Your task to perform on an android device: View the shopping cart on bestbuy.com. Search for "sony triple a" on bestbuy.com, select the first entry, and add it to the cart. Image 0: 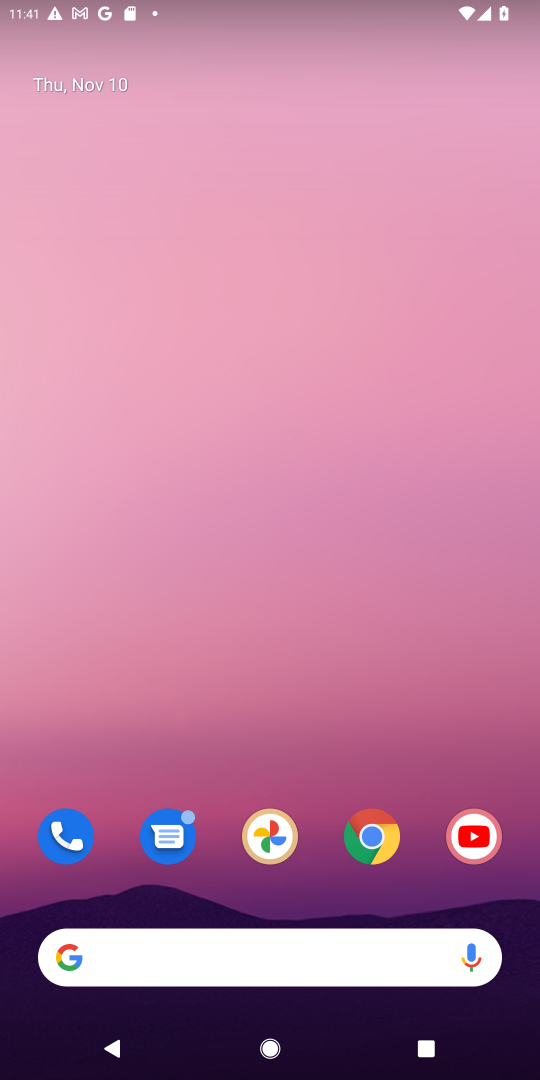
Step 0: click (264, 964)
Your task to perform on an android device: View the shopping cart on bestbuy.com. Search for "sony triple a" on bestbuy.com, select the first entry, and add it to the cart. Image 1: 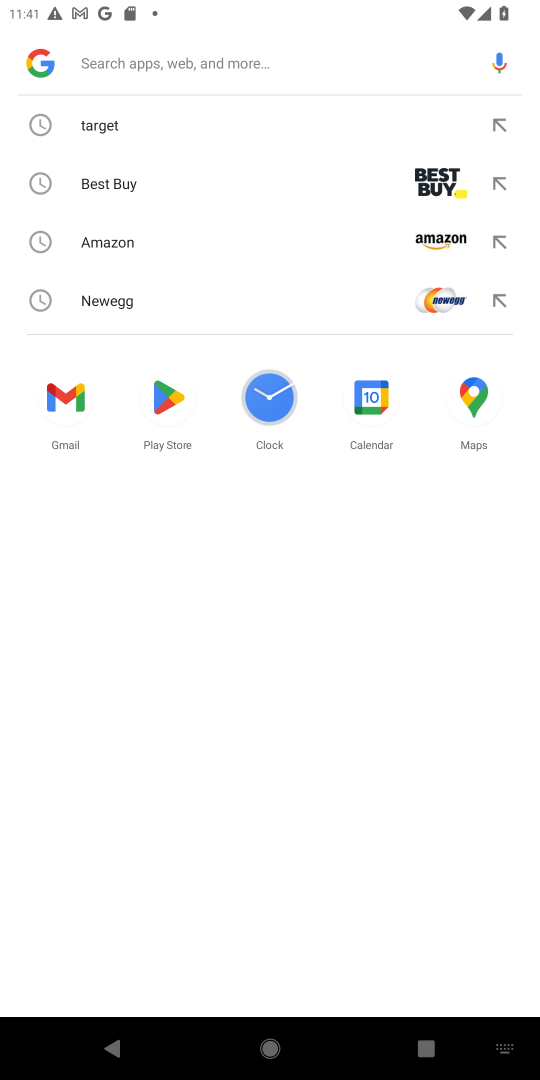
Step 1: click (316, 174)
Your task to perform on an android device: View the shopping cart on bestbuy.com. Search for "sony triple a" on bestbuy.com, select the first entry, and add it to the cart. Image 2: 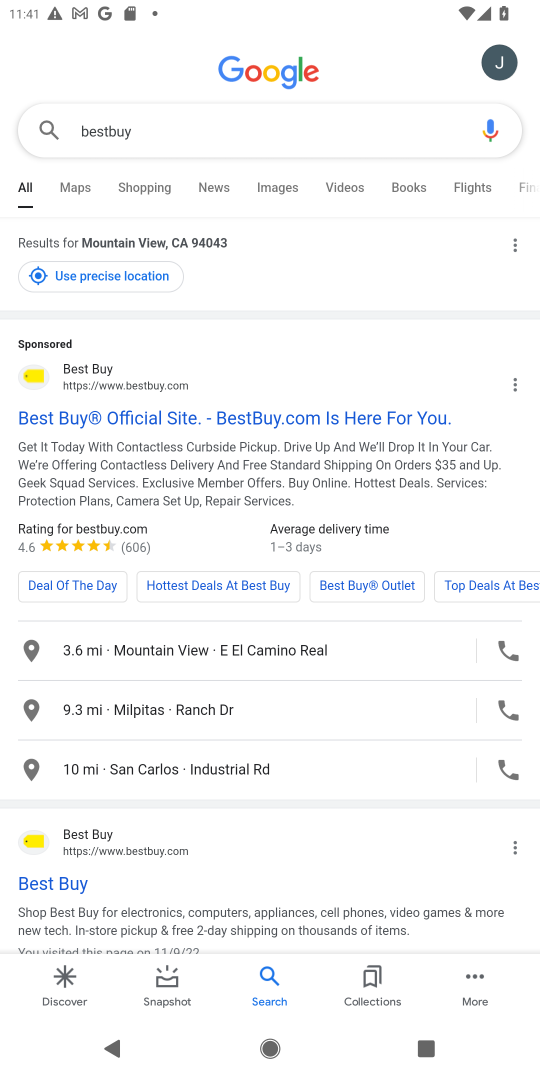
Step 2: click (86, 374)
Your task to perform on an android device: View the shopping cart on bestbuy.com. Search for "sony triple a" on bestbuy.com, select the first entry, and add it to the cart. Image 3: 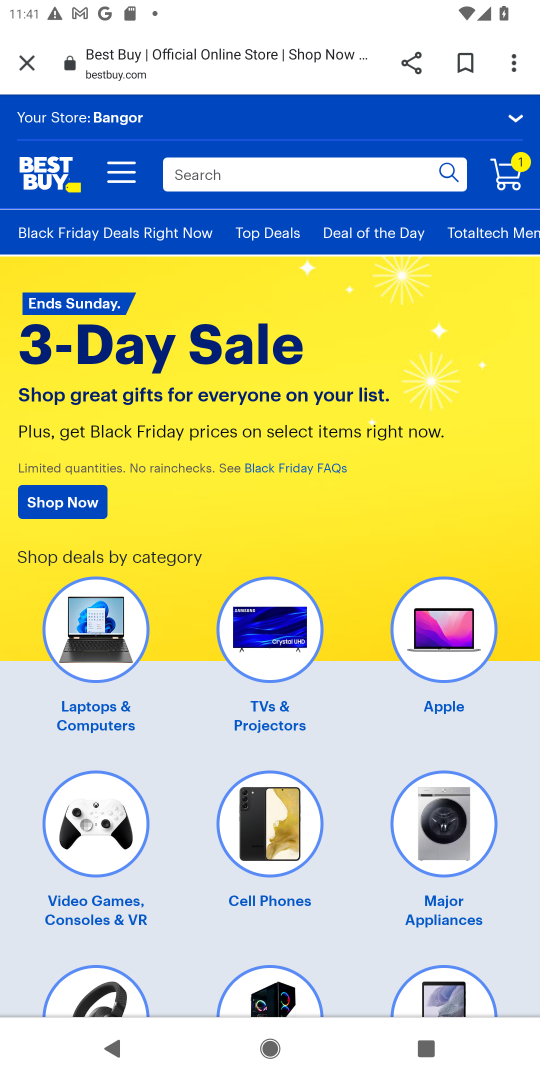
Step 3: click (209, 173)
Your task to perform on an android device: View the shopping cart on bestbuy.com. Search for "sony triple a" on bestbuy.com, select the first entry, and add it to the cart. Image 4: 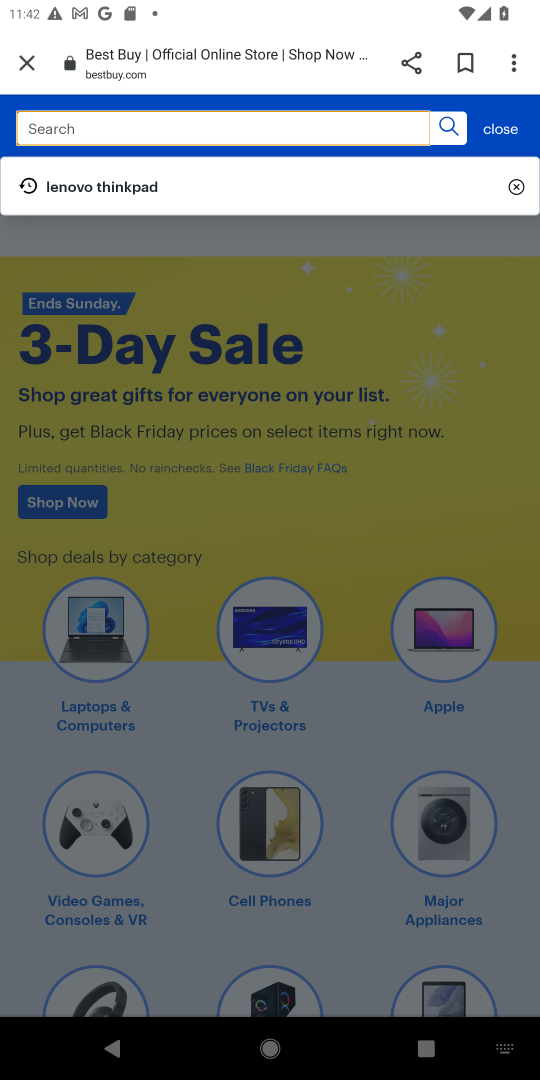
Step 4: type "sony triple a"
Your task to perform on an android device: View the shopping cart on bestbuy.com. Search for "sony triple a" on bestbuy.com, select the first entry, and add it to the cart. Image 5: 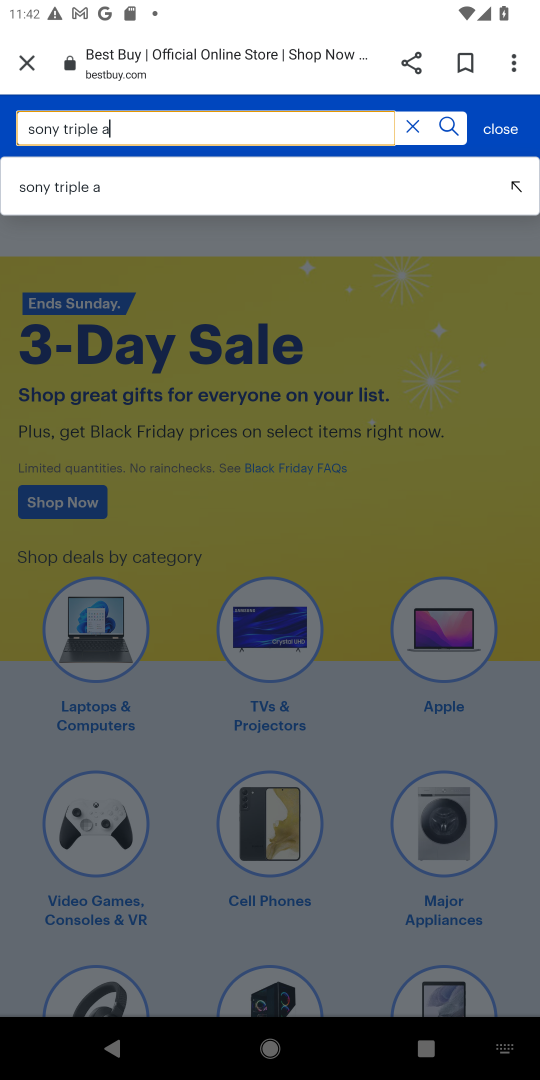
Step 5: click (439, 134)
Your task to perform on an android device: View the shopping cart on bestbuy.com. Search for "sony triple a" on bestbuy.com, select the first entry, and add it to the cart. Image 6: 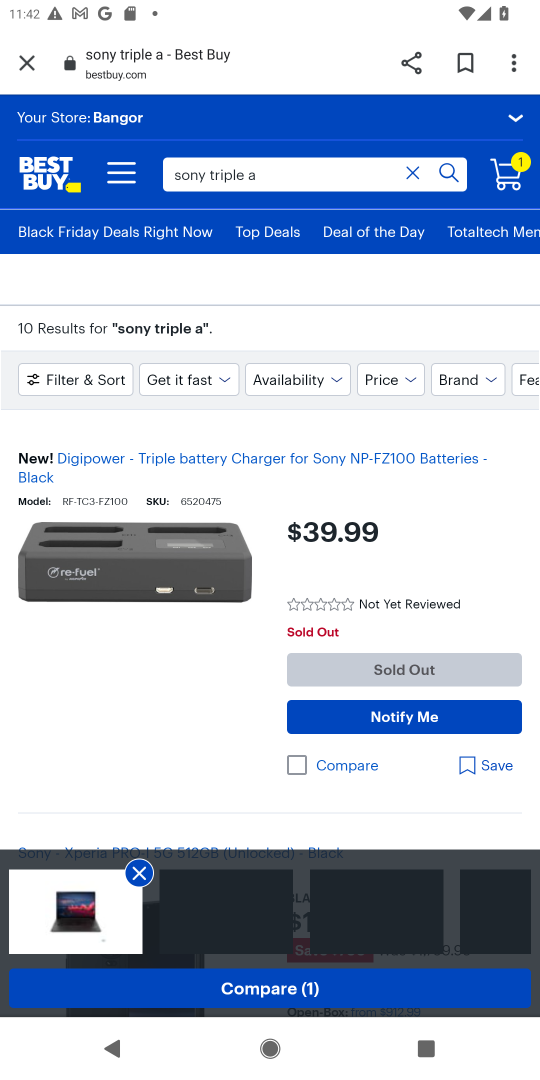
Step 6: task complete